Your task to perform on an android device: turn on notifications settings in the gmail app Image 0: 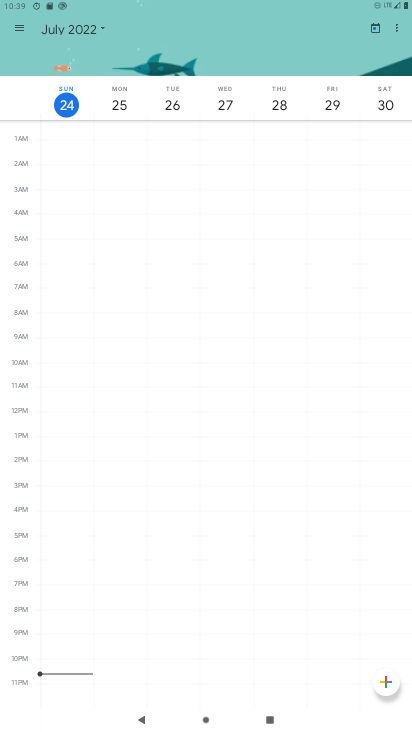
Step 0: press home button
Your task to perform on an android device: turn on notifications settings in the gmail app Image 1: 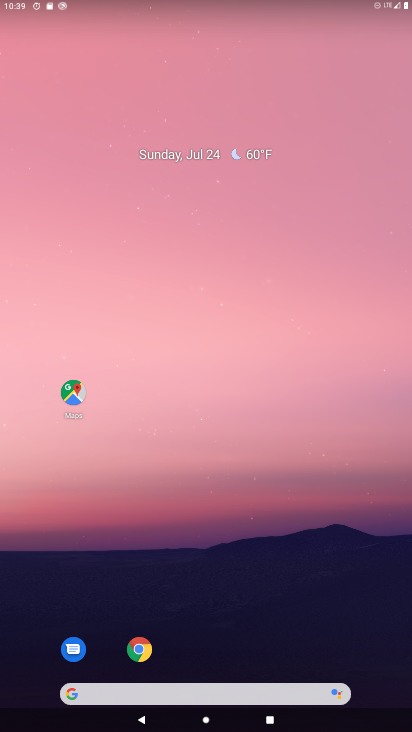
Step 1: drag from (226, 410) to (202, 0)
Your task to perform on an android device: turn on notifications settings in the gmail app Image 2: 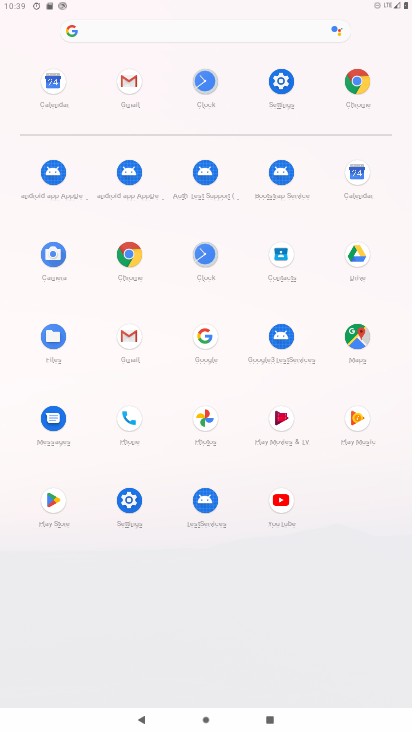
Step 2: click (129, 79)
Your task to perform on an android device: turn on notifications settings in the gmail app Image 3: 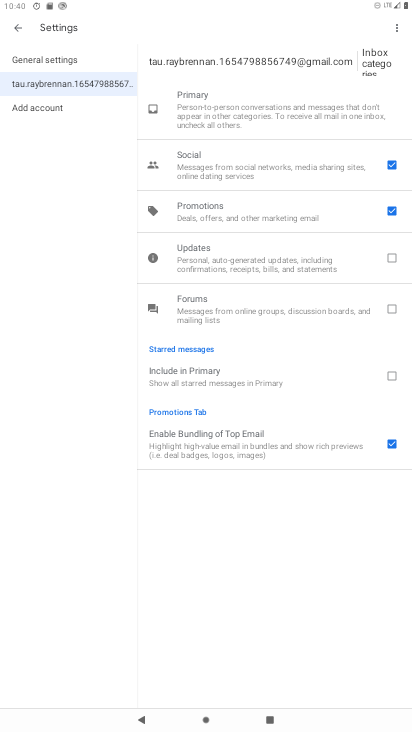
Step 3: click (44, 89)
Your task to perform on an android device: turn on notifications settings in the gmail app Image 4: 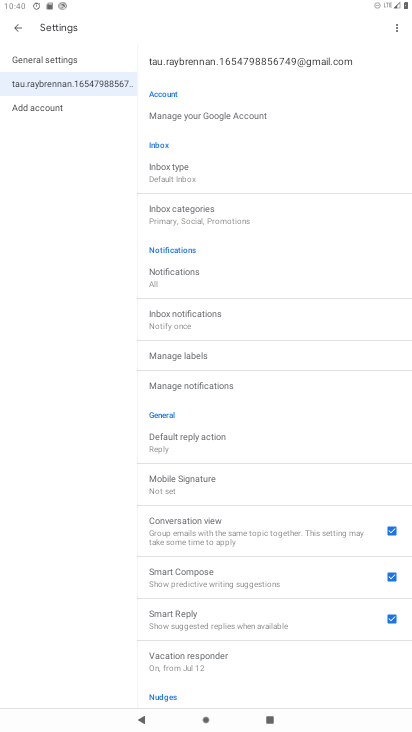
Step 4: drag from (332, 133) to (305, 564)
Your task to perform on an android device: turn on notifications settings in the gmail app Image 5: 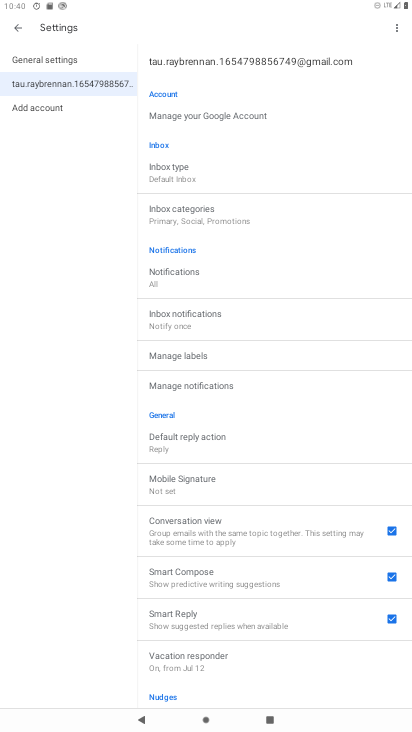
Step 5: click (178, 385)
Your task to perform on an android device: turn on notifications settings in the gmail app Image 6: 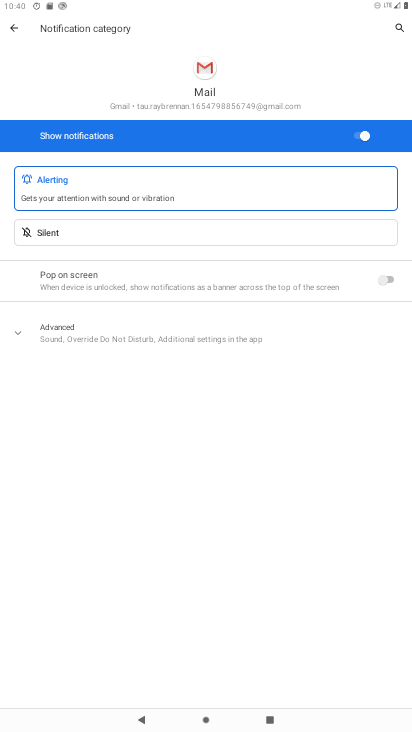
Step 6: task complete